Your task to perform on an android device: delete the emails in spam in the gmail app Image 0: 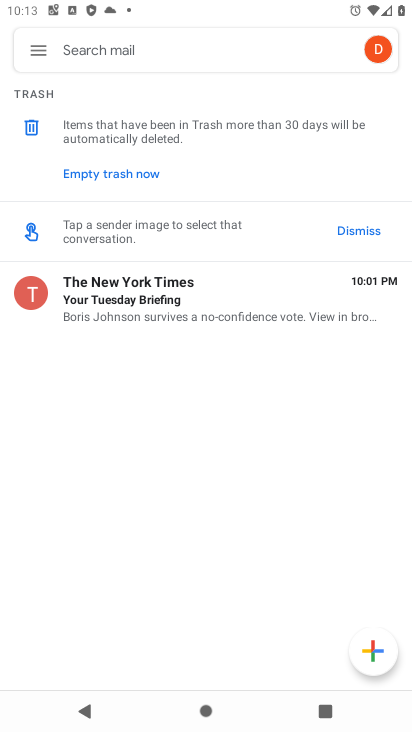
Step 0: task complete